Your task to perform on an android device: Go to Google maps Image 0: 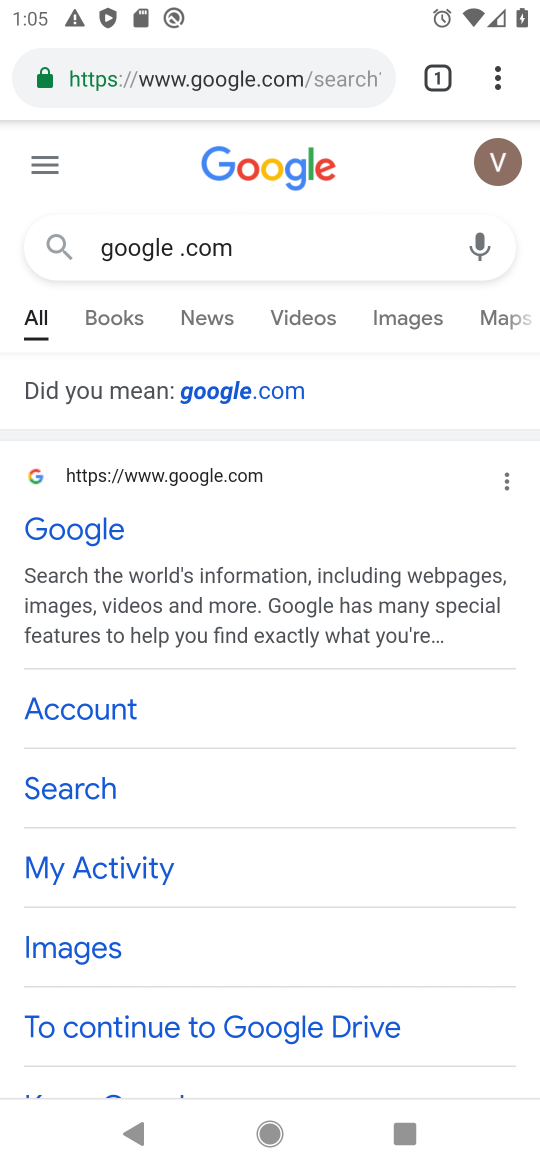
Step 0: press home button
Your task to perform on an android device: Go to Google maps Image 1: 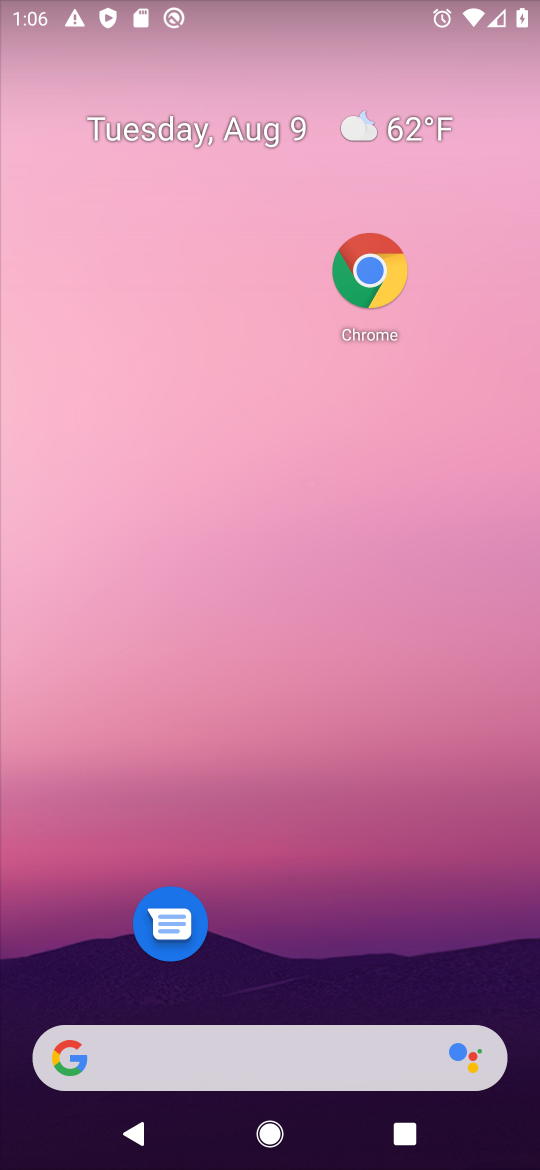
Step 1: task complete